Your task to perform on an android device: clear all cookies in the chrome app Image 0: 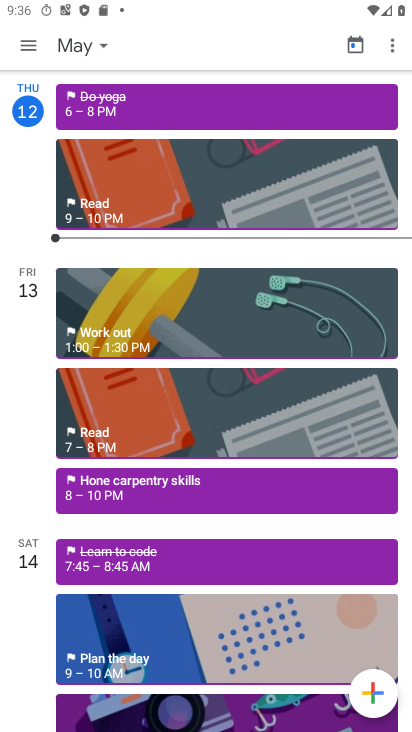
Step 0: press home button
Your task to perform on an android device: clear all cookies in the chrome app Image 1: 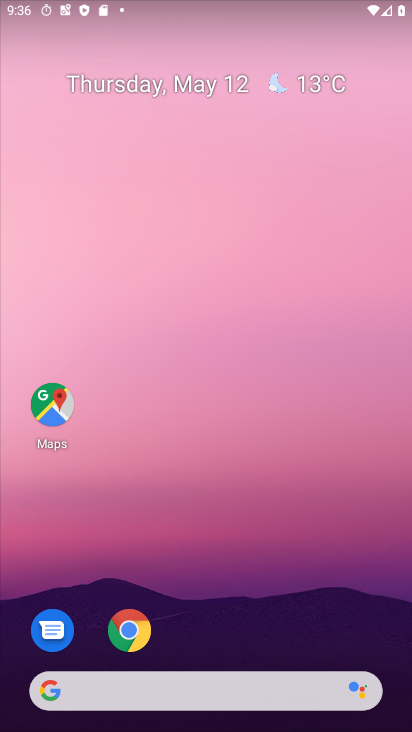
Step 1: click (145, 640)
Your task to perform on an android device: clear all cookies in the chrome app Image 2: 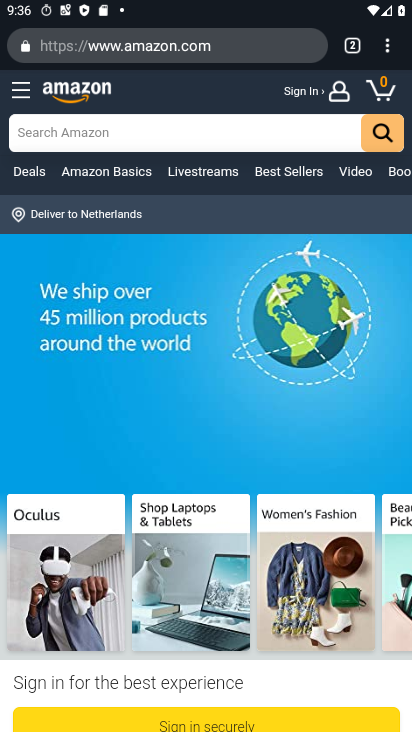
Step 2: click (389, 46)
Your task to perform on an android device: clear all cookies in the chrome app Image 3: 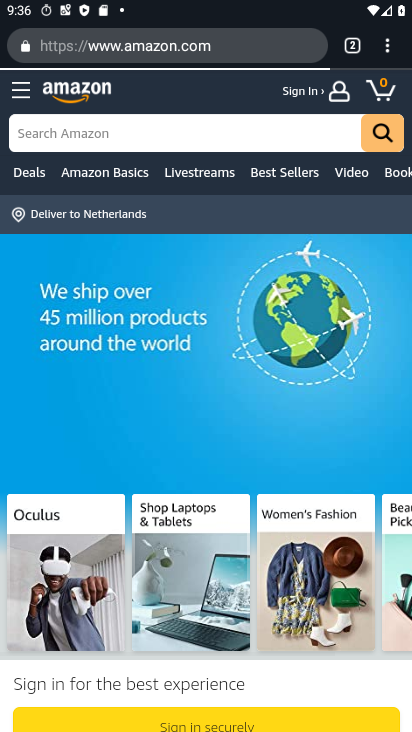
Step 3: drag from (388, 52) to (252, 322)
Your task to perform on an android device: clear all cookies in the chrome app Image 4: 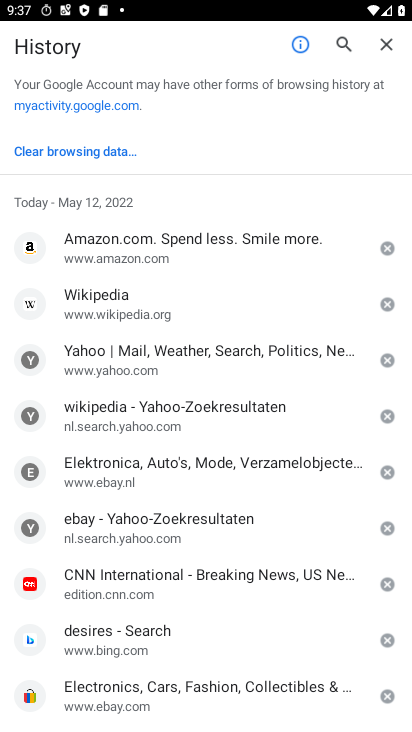
Step 4: click (94, 156)
Your task to perform on an android device: clear all cookies in the chrome app Image 5: 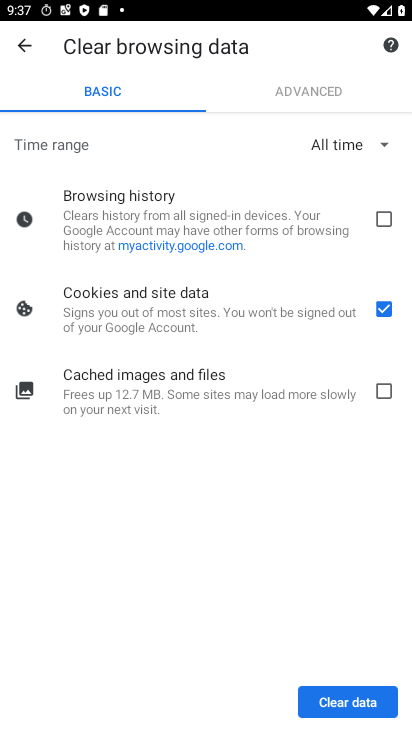
Step 5: click (350, 717)
Your task to perform on an android device: clear all cookies in the chrome app Image 6: 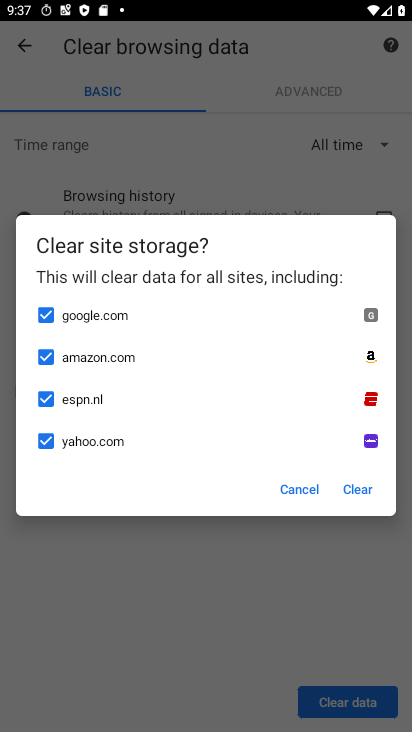
Step 6: click (351, 486)
Your task to perform on an android device: clear all cookies in the chrome app Image 7: 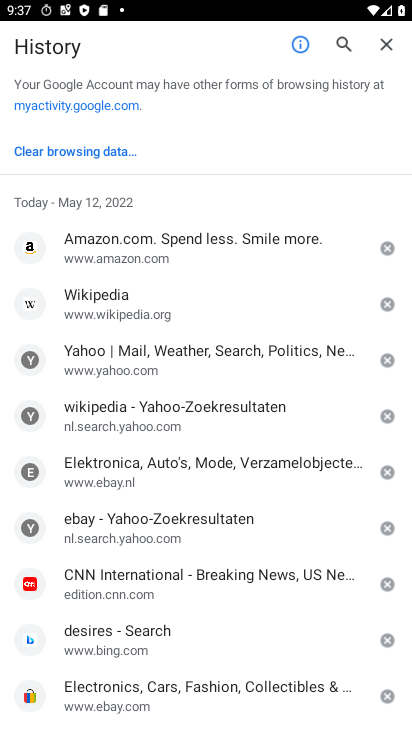
Step 7: task complete